Your task to perform on an android device: clear all cookies in the chrome app Image 0: 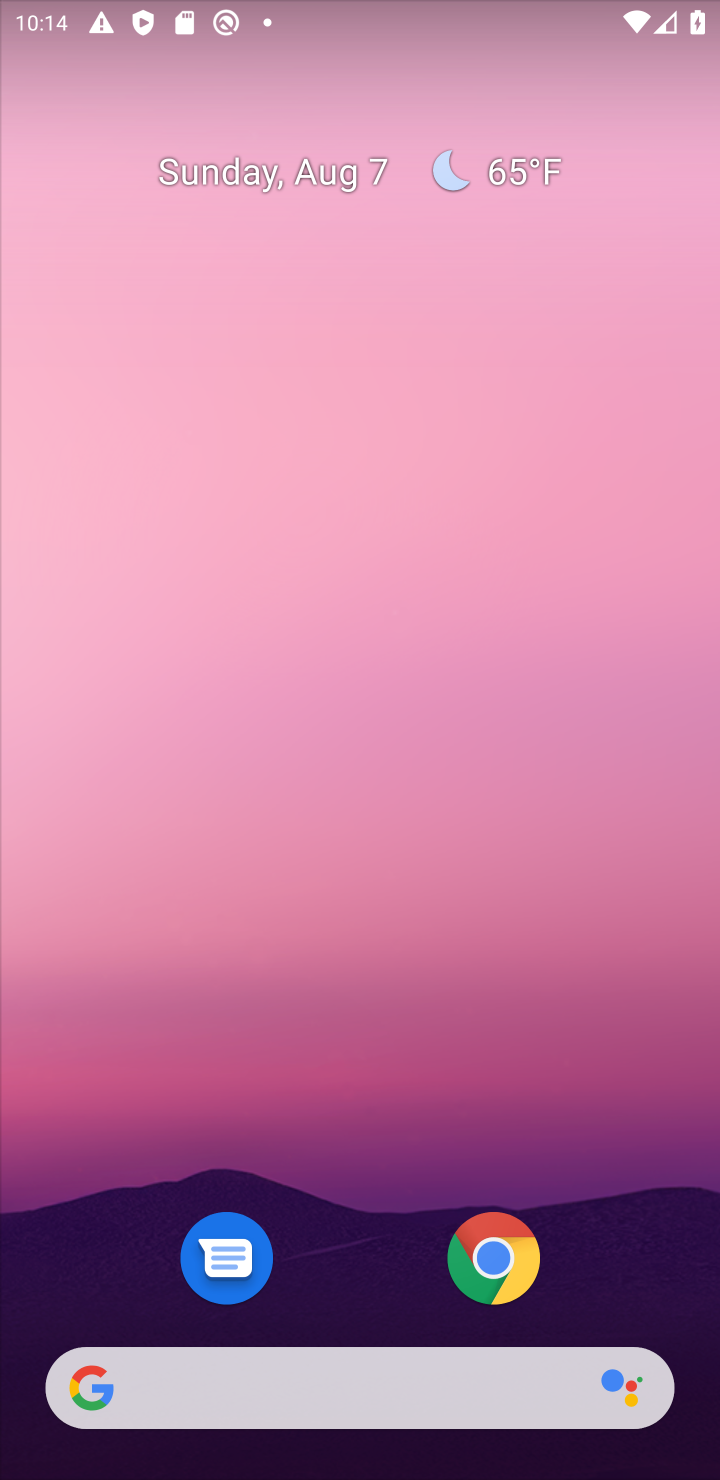
Step 0: press home button
Your task to perform on an android device: clear all cookies in the chrome app Image 1: 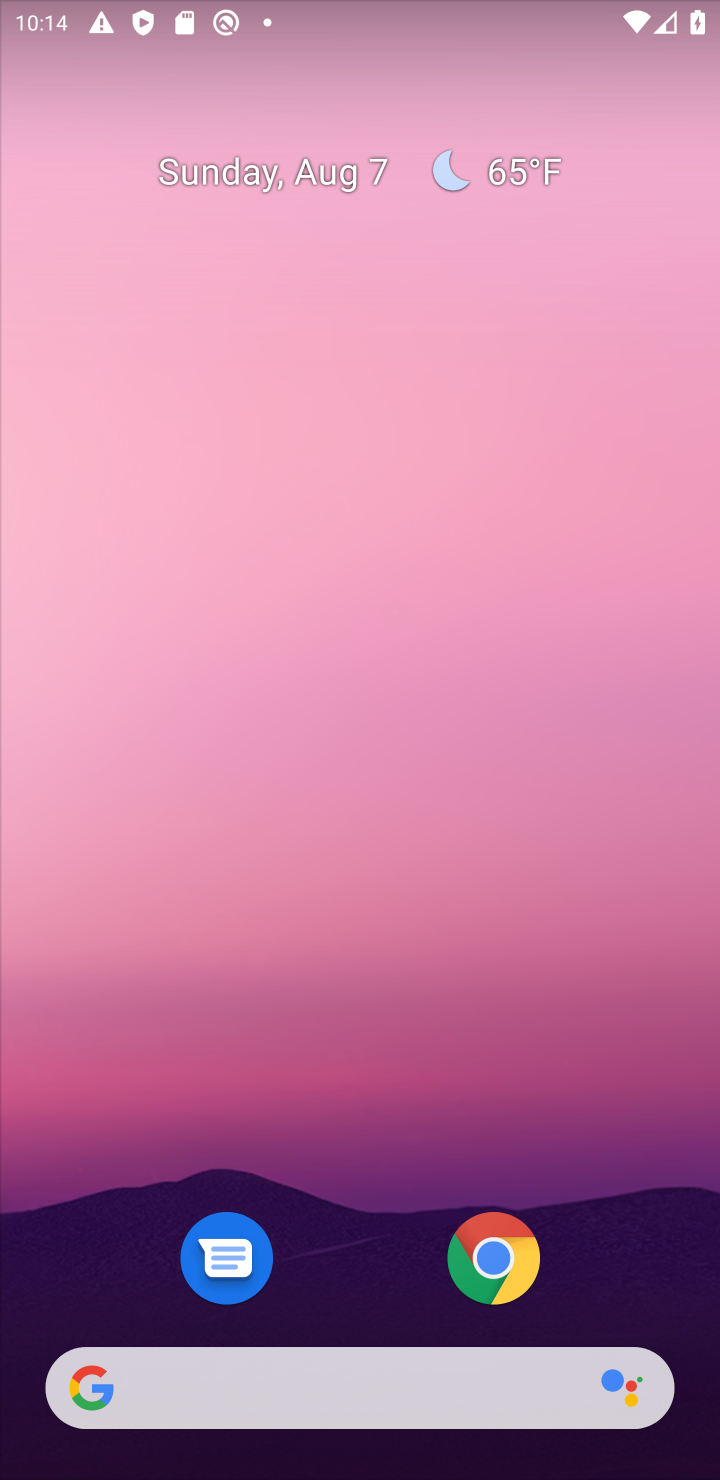
Step 1: press home button
Your task to perform on an android device: clear all cookies in the chrome app Image 2: 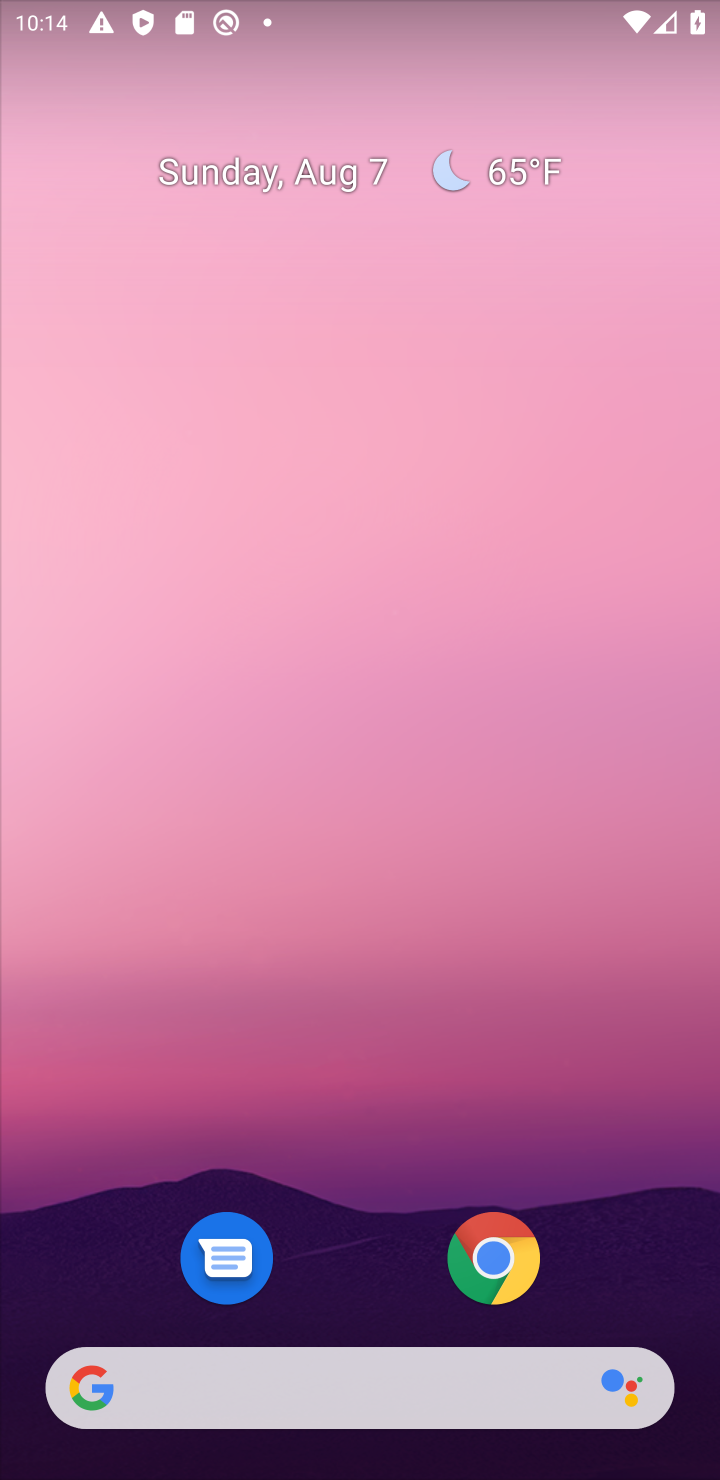
Step 2: drag from (354, 1269) to (455, 182)
Your task to perform on an android device: clear all cookies in the chrome app Image 3: 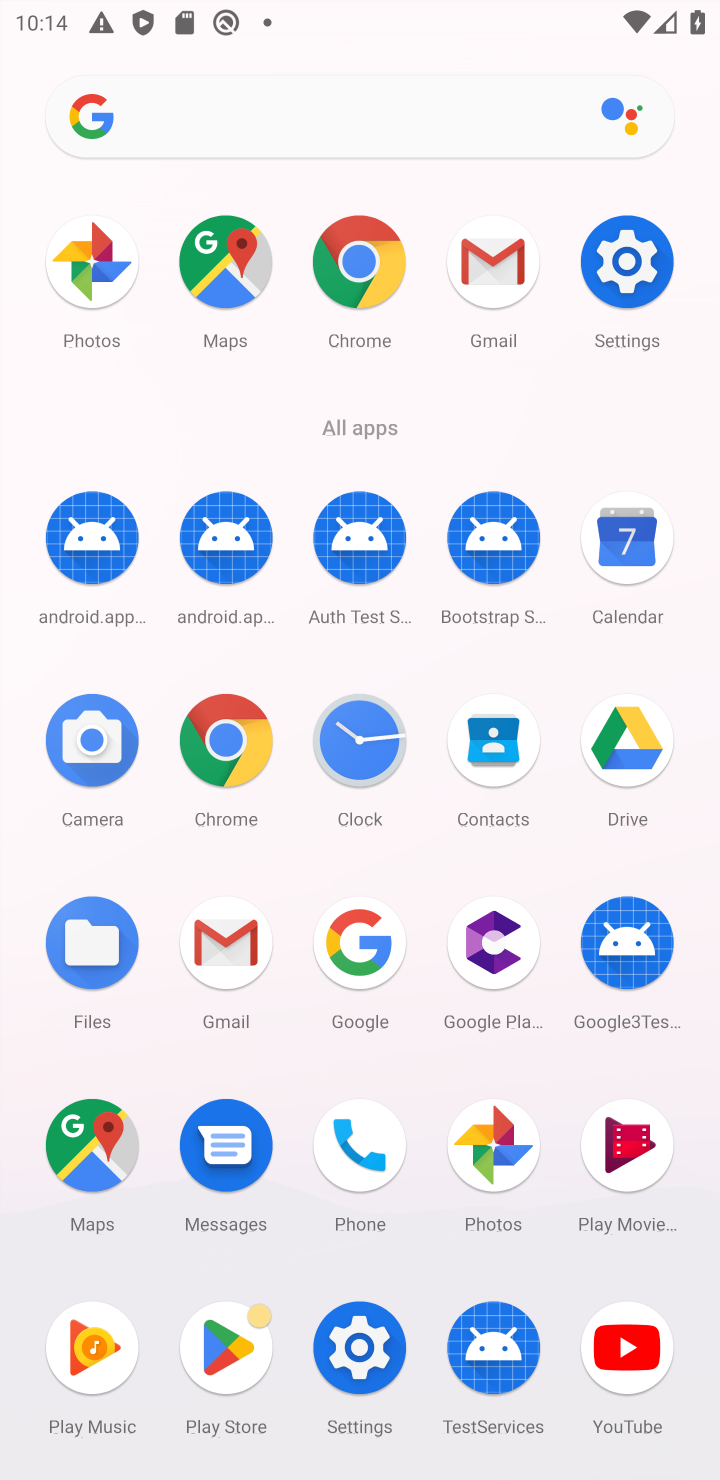
Step 3: click (211, 728)
Your task to perform on an android device: clear all cookies in the chrome app Image 4: 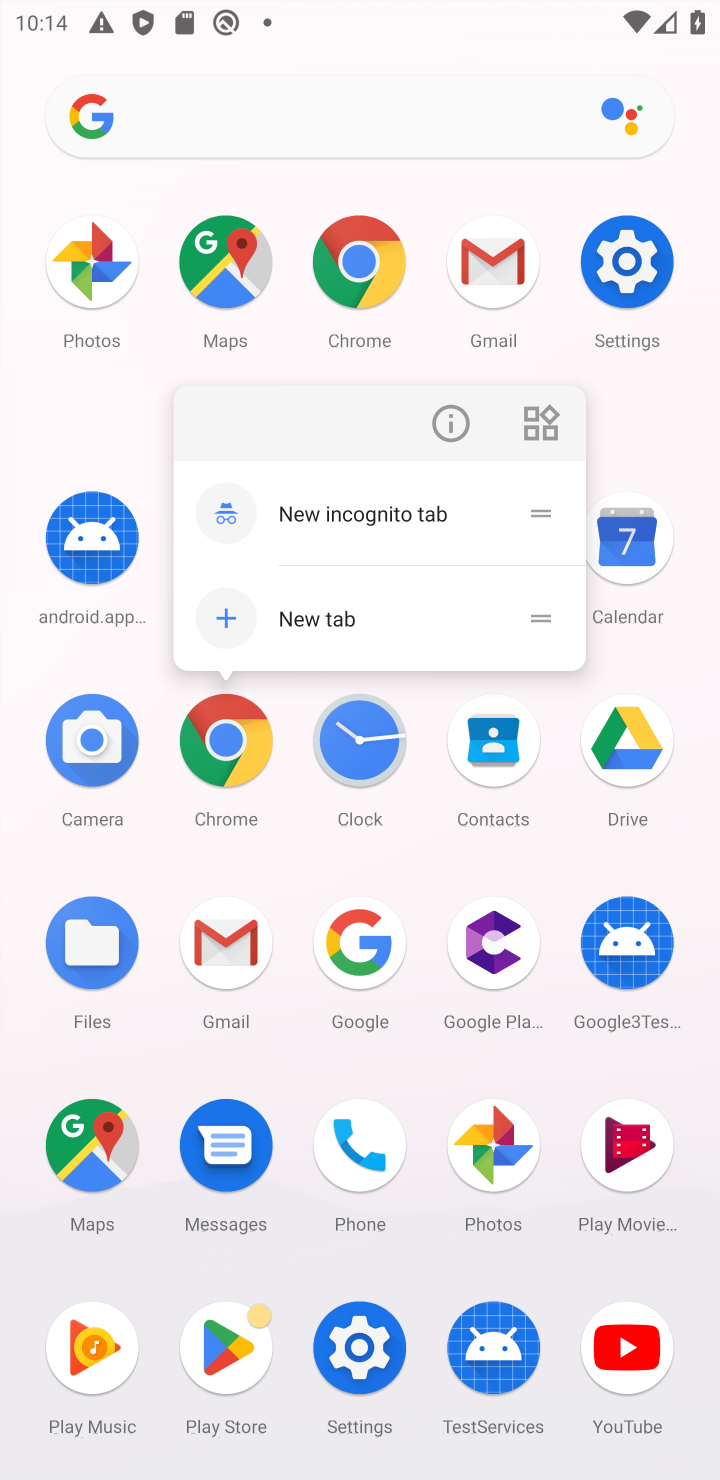
Step 4: click (211, 728)
Your task to perform on an android device: clear all cookies in the chrome app Image 5: 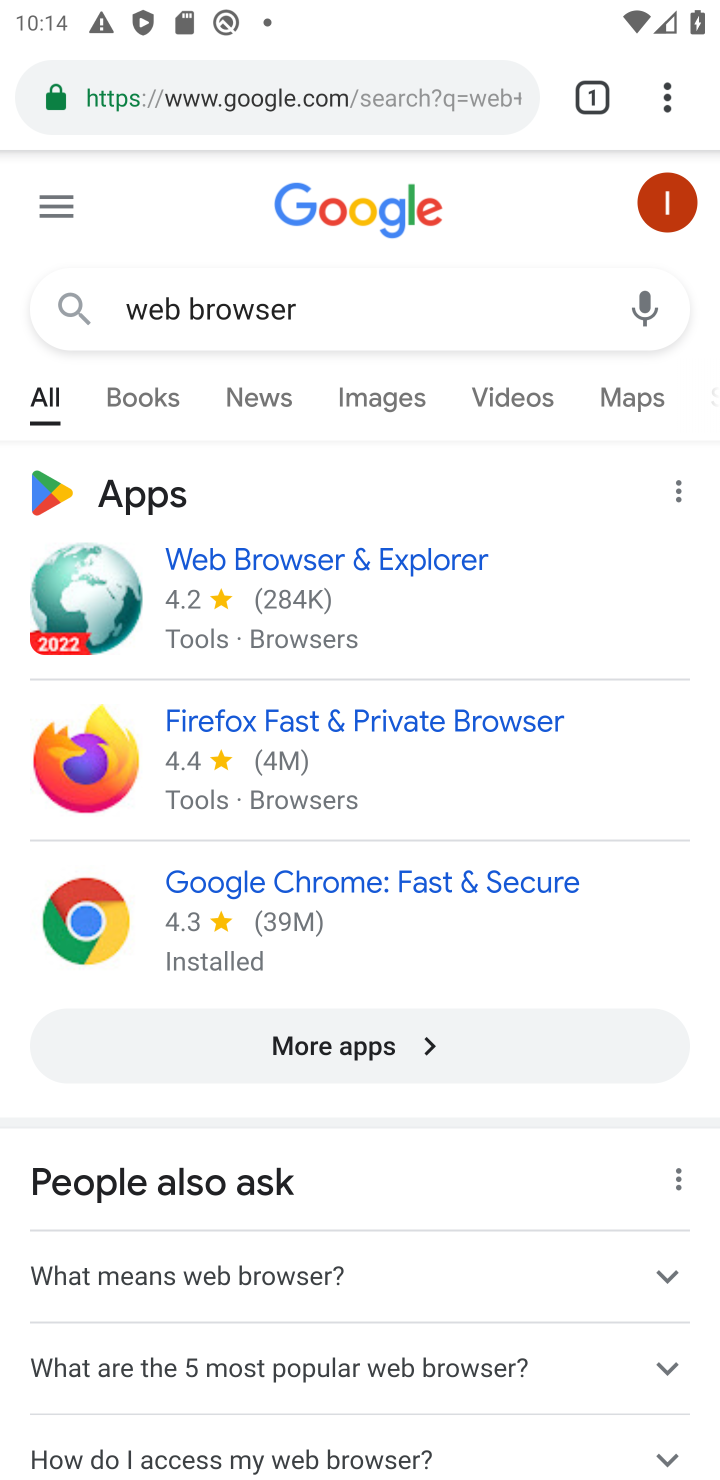
Step 5: drag from (664, 65) to (289, 1183)
Your task to perform on an android device: clear all cookies in the chrome app Image 6: 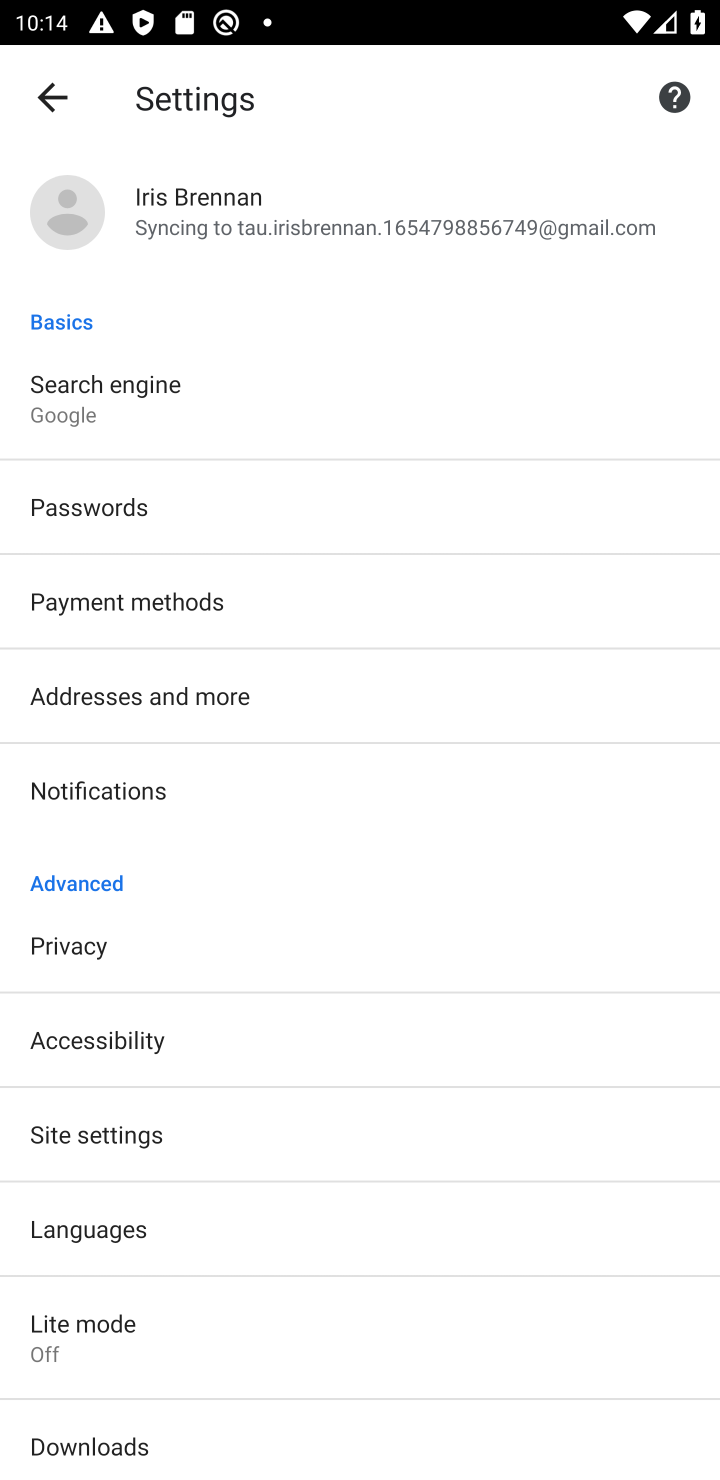
Step 6: click (108, 947)
Your task to perform on an android device: clear all cookies in the chrome app Image 7: 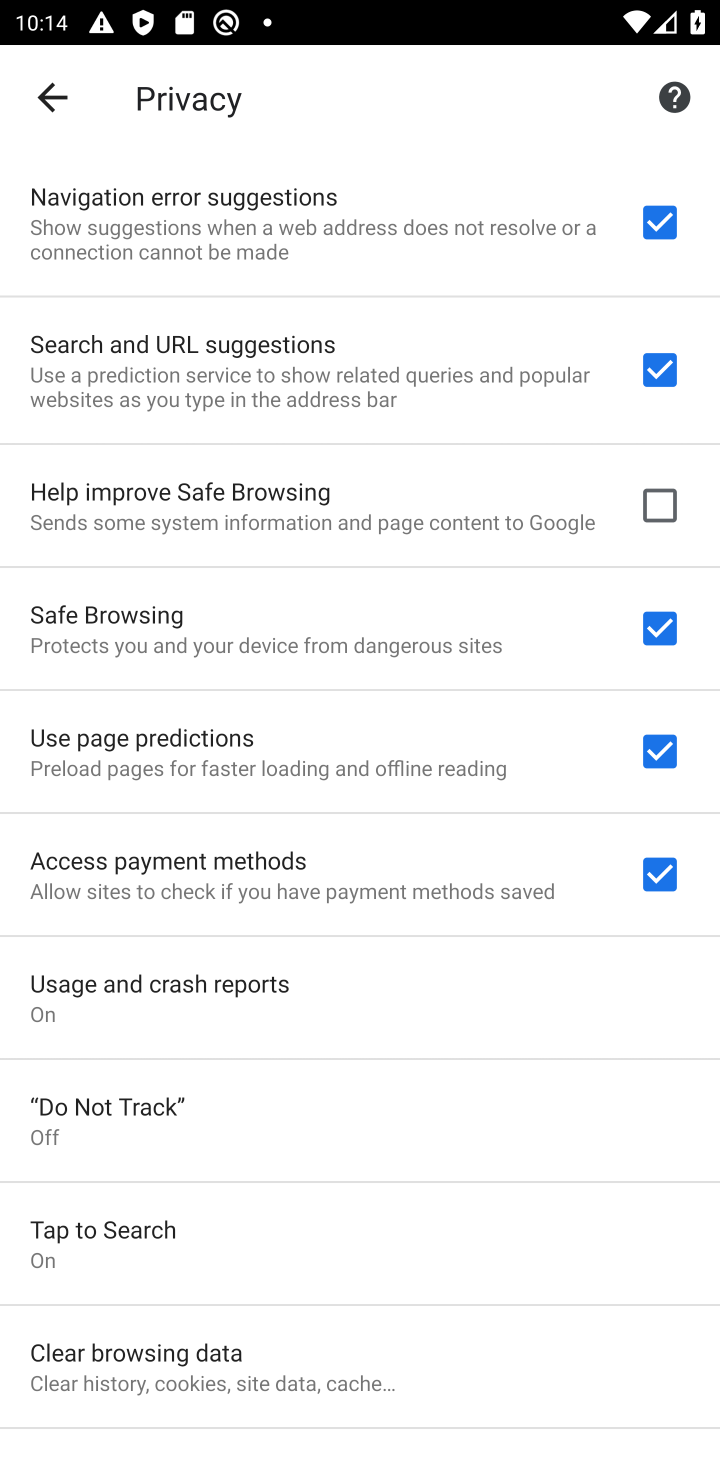
Step 7: click (212, 1349)
Your task to perform on an android device: clear all cookies in the chrome app Image 8: 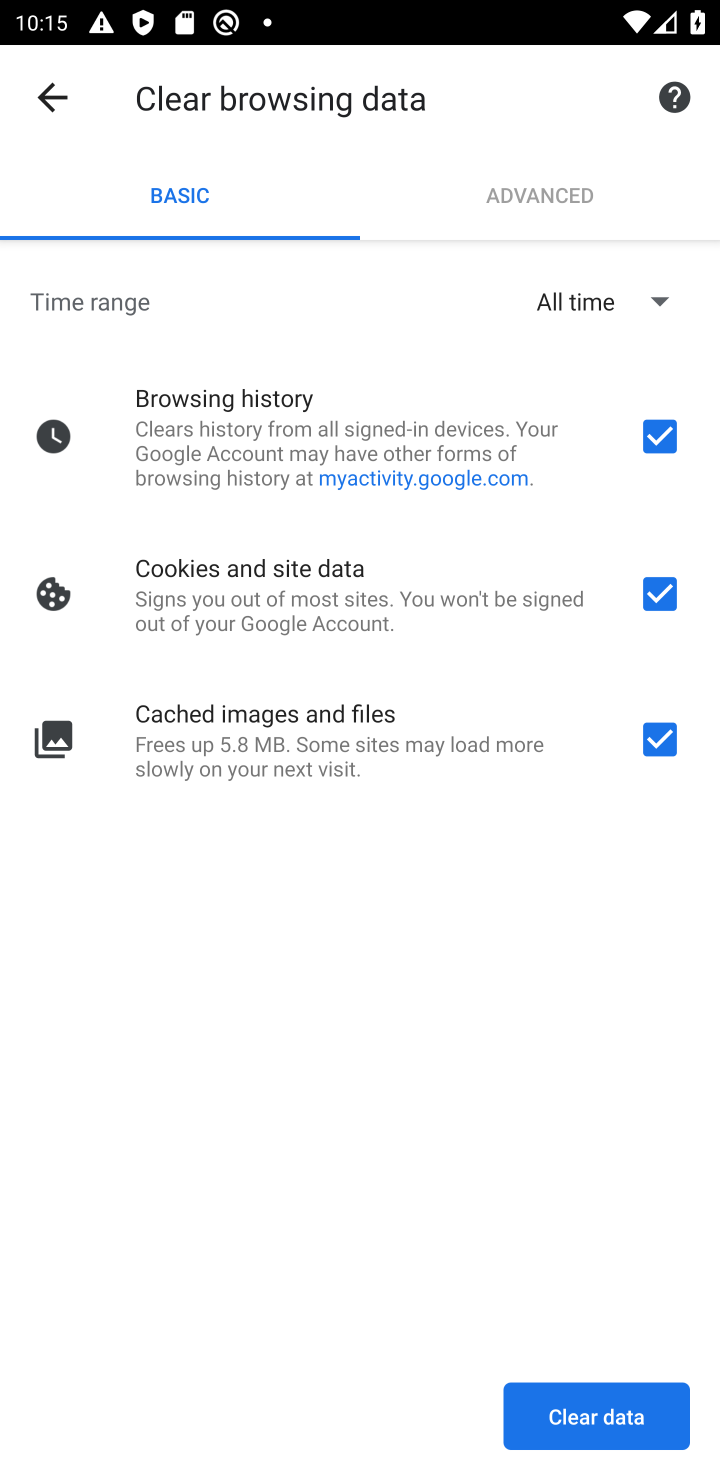
Step 8: click (589, 1422)
Your task to perform on an android device: clear all cookies in the chrome app Image 9: 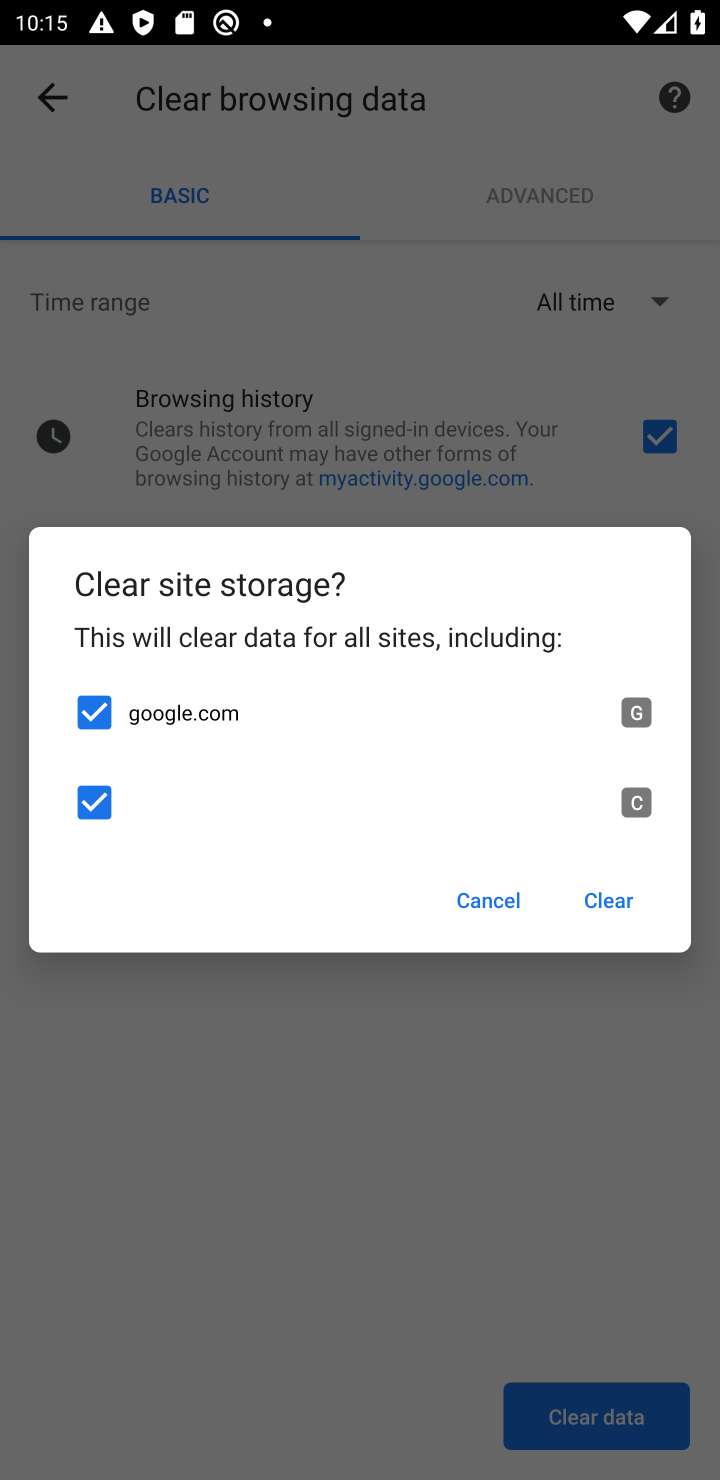
Step 9: click (589, 900)
Your task to perform on an android device: clear all cookies in the chrome app Image 10: 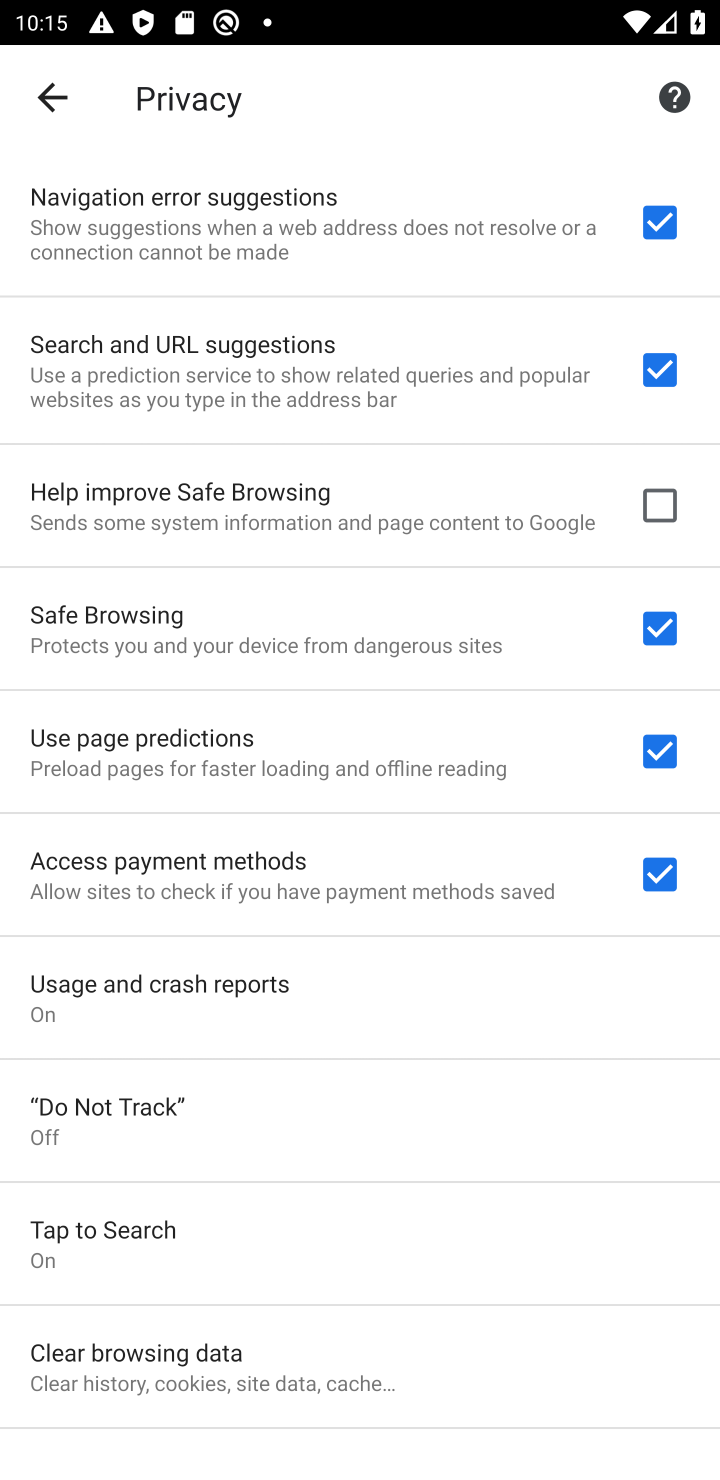
Step 10: task complete